Your task to perform on an android device: remove spam from my inbox in the gmail app Image 0: 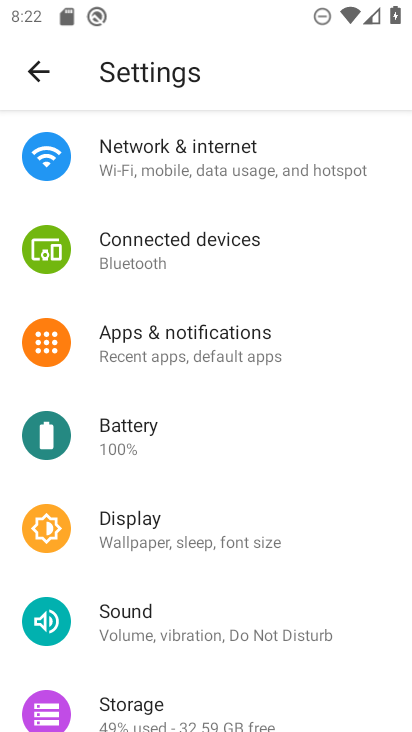
Step 0: press home button
Your task to perform on an android device: remove spam from my inbox in the gmail app Image 1: 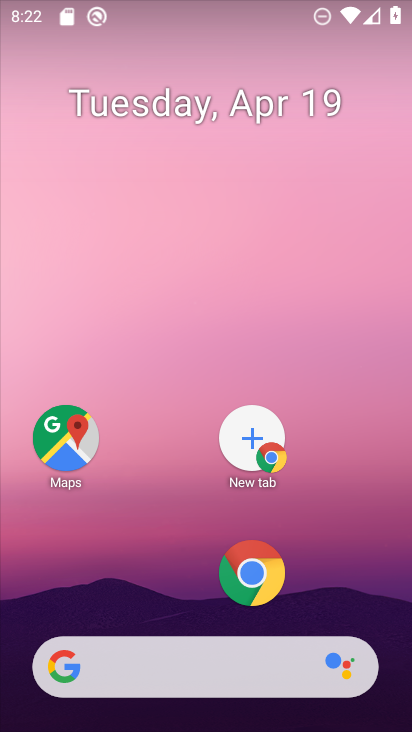
Step 1: drag from (182, 609) to (164, 14)
Your task to perform on an android device: remove spam from my inbox in the gmail app Image 2: 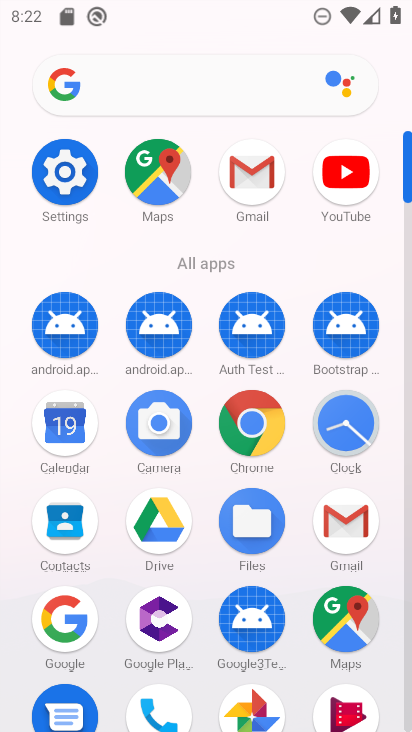
Step 2: click (262, 162)
Your task to perform on an android device: remove spam from my inbox in the gmail app Image 3: 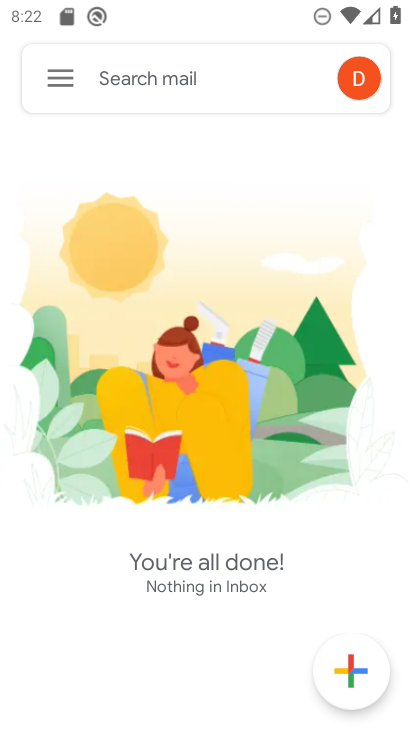
Step 3: click (44, 84)
Your task to perform on an android device: remove spam from my inbox in the gmail app Image 4: 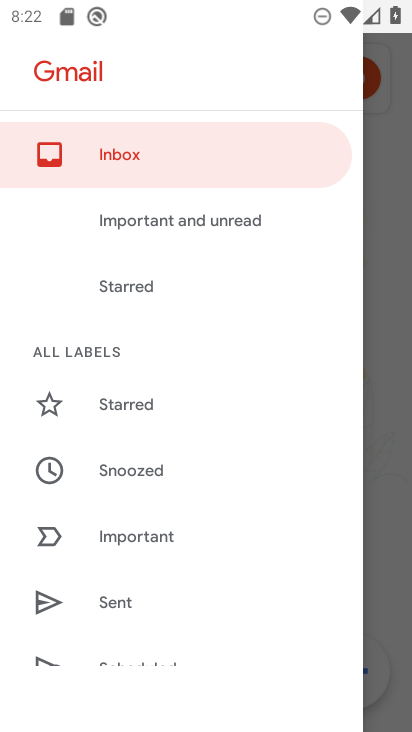
Step 4: drag from (181, 620) to (205, 122)
Your task to perform on an android device: remove spam from my inbox in the gmail app Image 5: 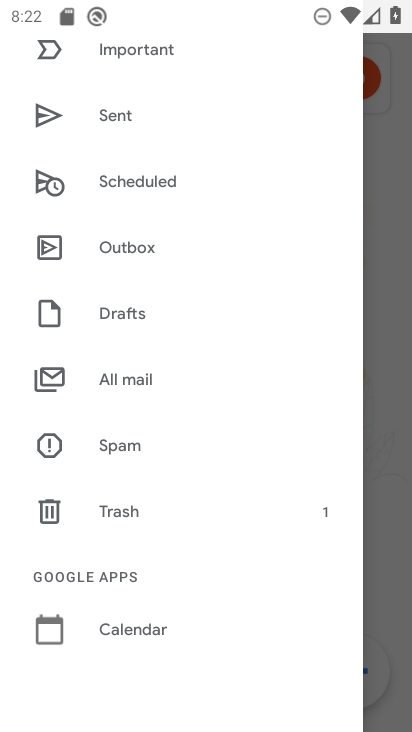
Step 5: click (137, 441)
Your task to perform on an android device: remove spam from my inbox in the gmail app Image 6: 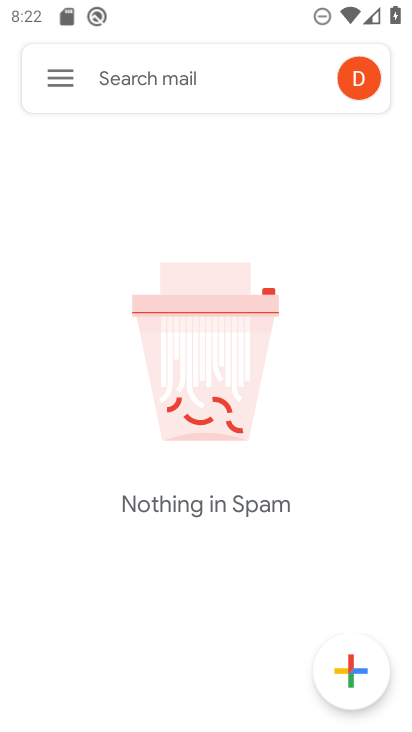
Step 6: task complete